Your task to perform on an android device: Show me popular videos on Youtube Image 0: 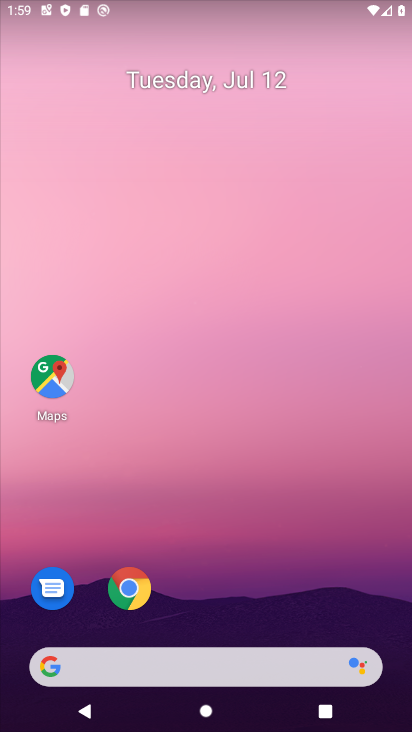
Step 0: drag from (175, 672) to (148, 51)
Your task to perform on an android device: Show me popular videos on Youtube Image 1: 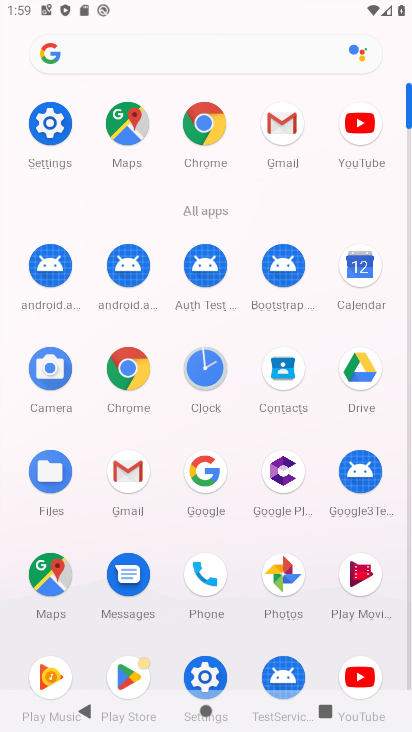
Step 1: click (360, 663)
Your task to perform on an android device: Show me popular videos on Youtube Image 2: 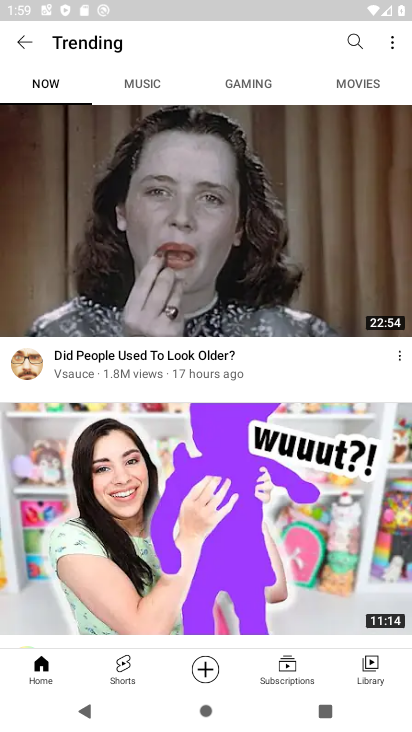
Step 2: task complete